Your task to perform on an android device: Toggle the flashlight Image 0: 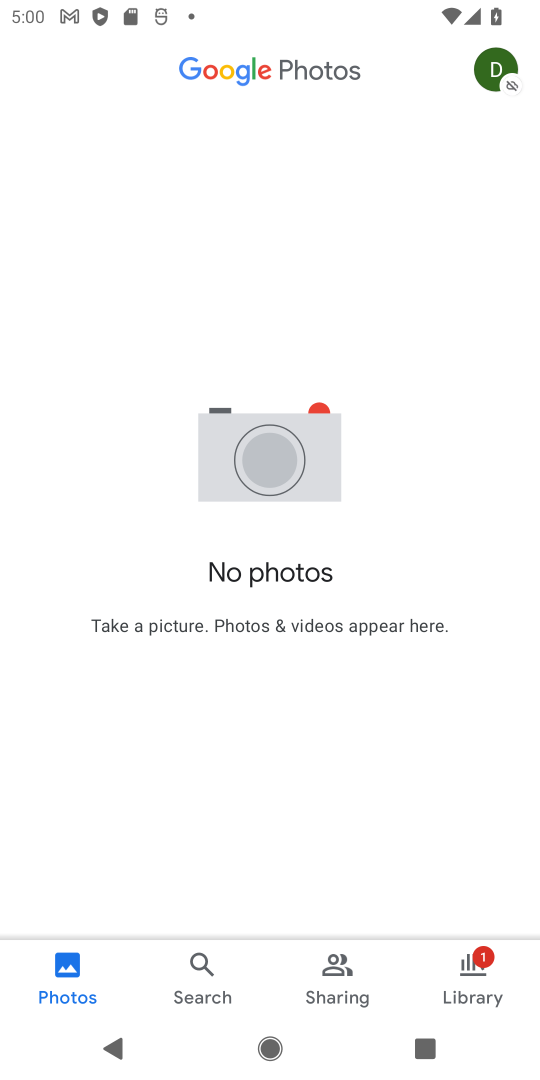
Step 0: press back button
Your task to perform on an android device: Toggle the flashlight Image 1: 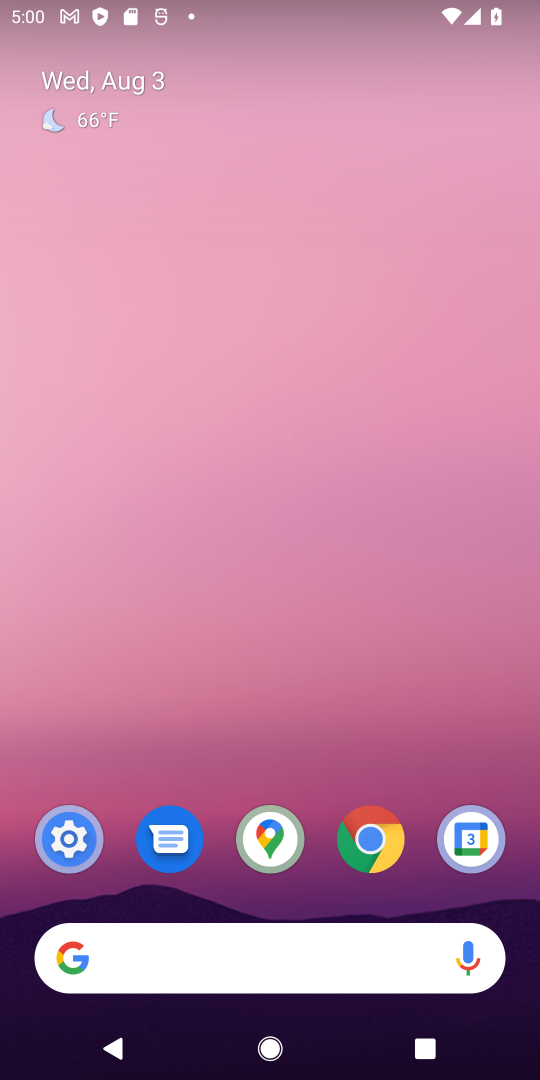
Step 1: click (52, 847)
Your task to perform on an android device: Toggle the flashlight Image 2: 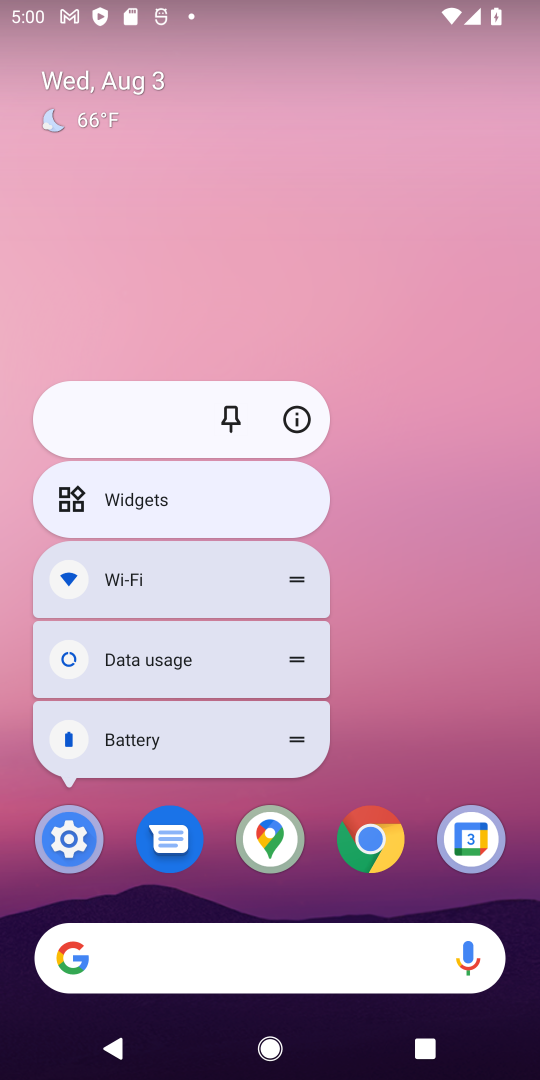
Step 2: click (106, 844)
Your task to perform on an android device: Toggle the flashlight Image 3: 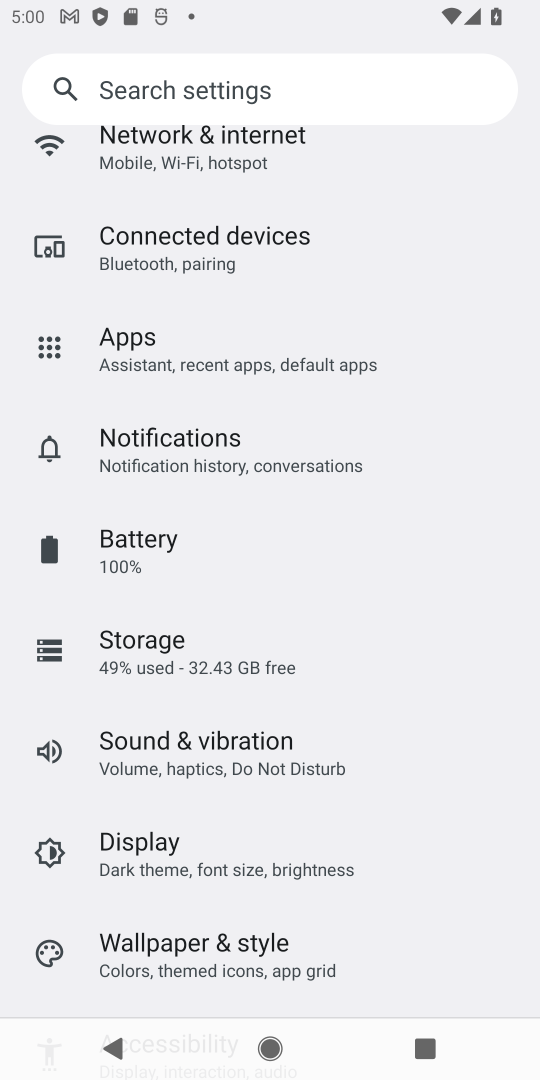
Step 3: click (299, 96)
Your task to perform on an android device: Toggle the flashlight Image 4: 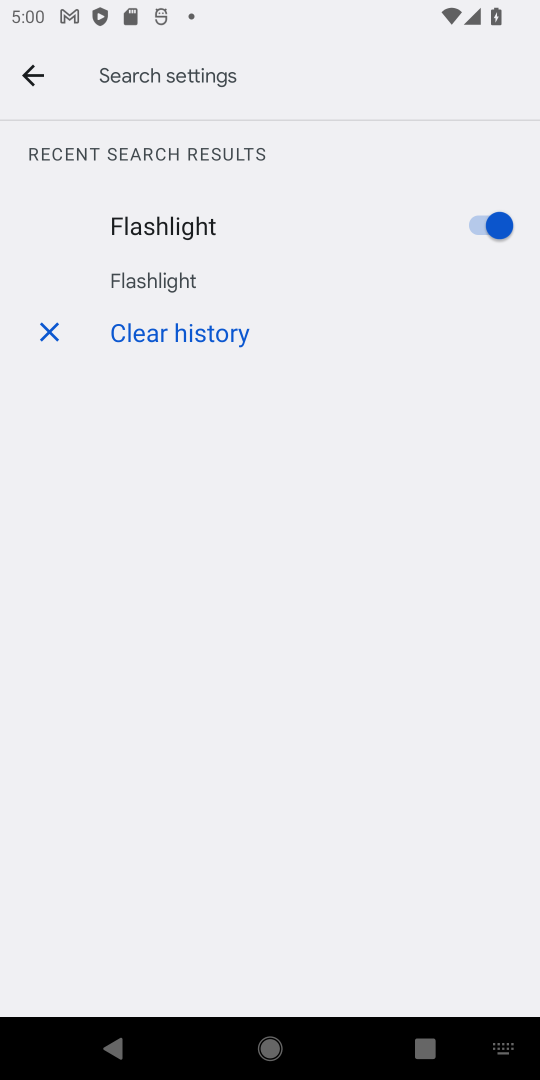
Step 4: click (163, 253)
Your task to perform on an android device: Toggle the flashlight Image 5: 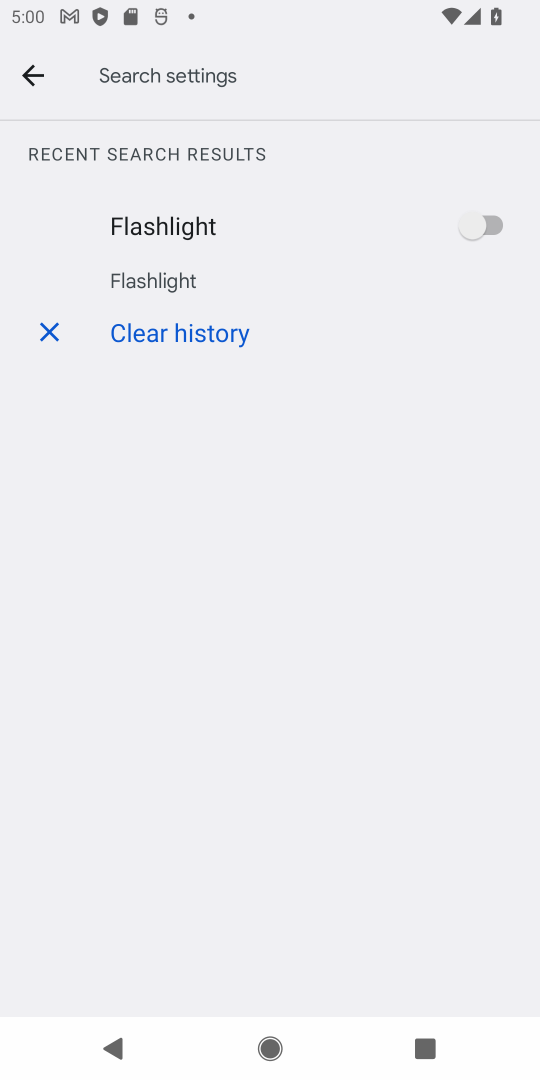
Step 5: task complete